Your task to perform on an android device: turn off javascript in the chrome app Image 0: 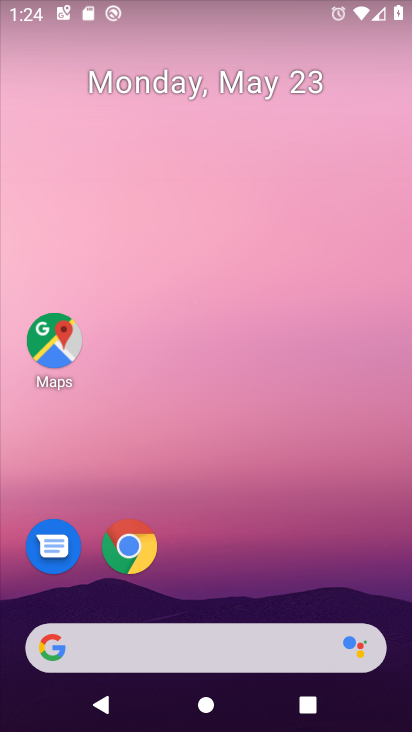
Step 0: click (131, 547)
Your task to perform on an android device: turn off javascript in the chrome app Image 1: 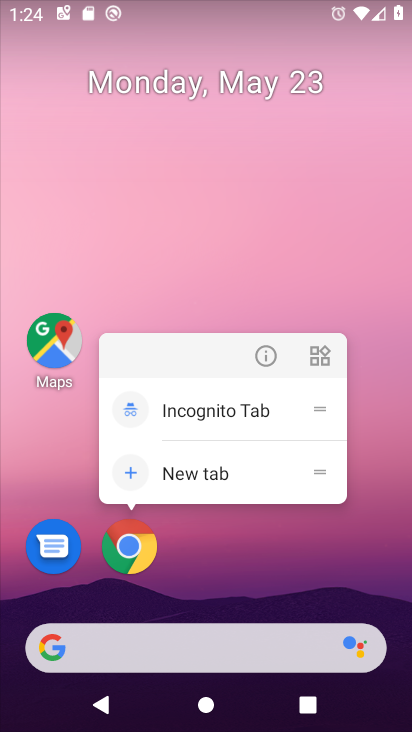
Step 1: click (287, 201)
Your task to perform on an android device: turn off javascript in the chrome app Image 2: 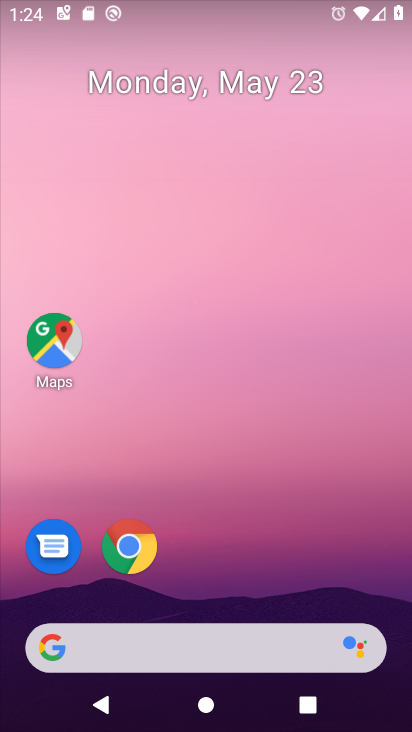
Step 2: click (131, 557)
Your task to perform on an android device: turn off javascript in the chrome app Image 3: 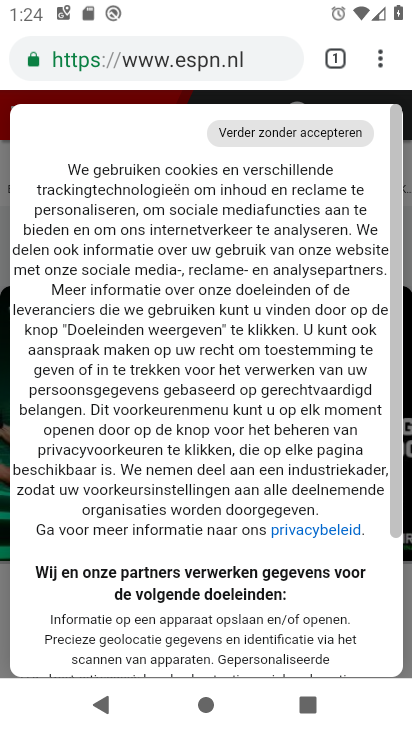
Step 3: click (381, 64)
Your task to perform on an android device: turn off javascript in the chrome app Image 4: 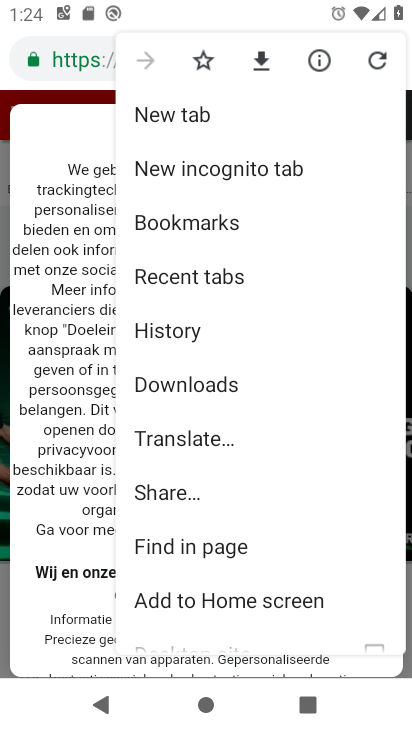
Step 4: drag from (223, 538) to (195, 168)
Your task to perform on an android device: turn off javascript in the chrome app Image 5: 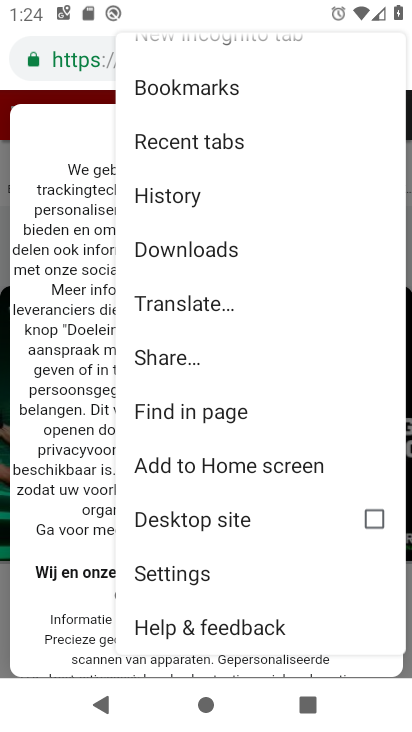
Step 5: click (201, 577)
Your task to perform on an android device: turn off javascript in the chrome app Image 6: 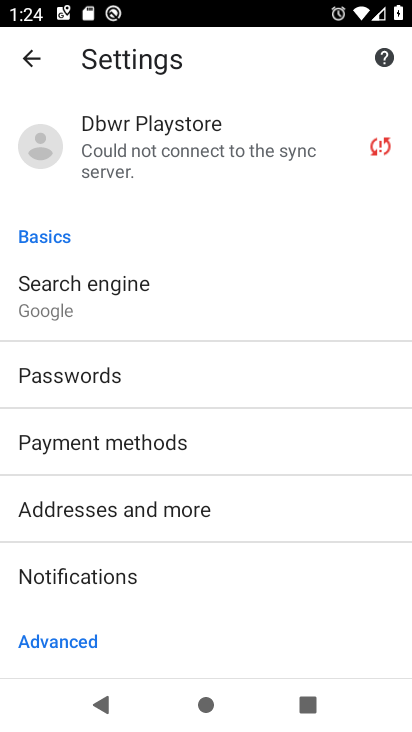
Step 6: drag from (202, 584) to (227, 378)
Your task to perform on an android device: turn off javascript in the chrome app Image 7: 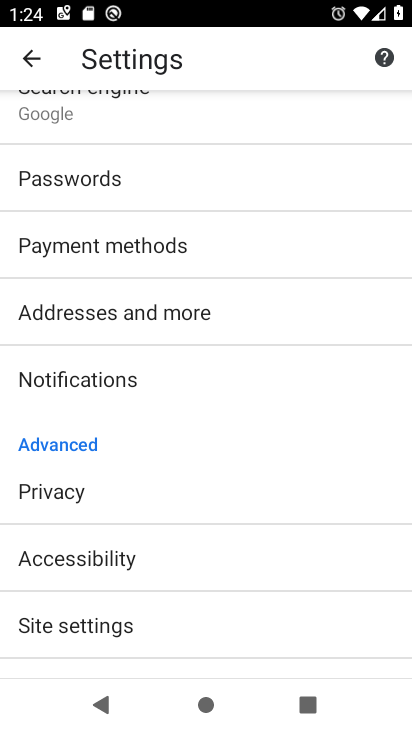
Step 7: click (140, 625)
Your task to perform on an android device: turn off javascript in the chrome app Image 8: 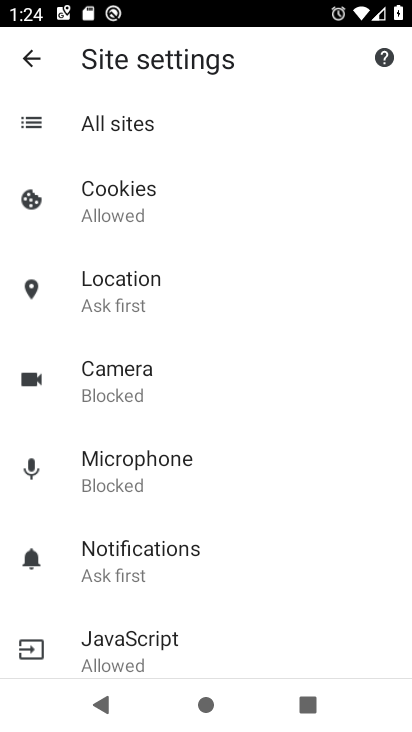
Step 8: click (157, 632)
Your task to perform on an android device: turn off javascript in the chrome app Image 9: 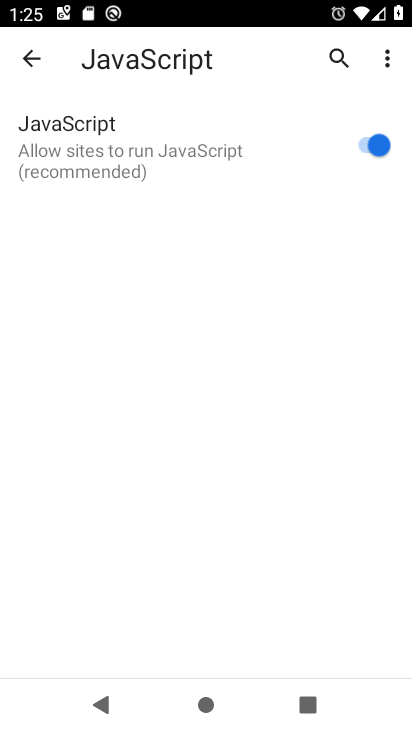
Step 9: click (363, 152)
Your task to perform on an android device: turn off javascript in the chrome app Image 10: 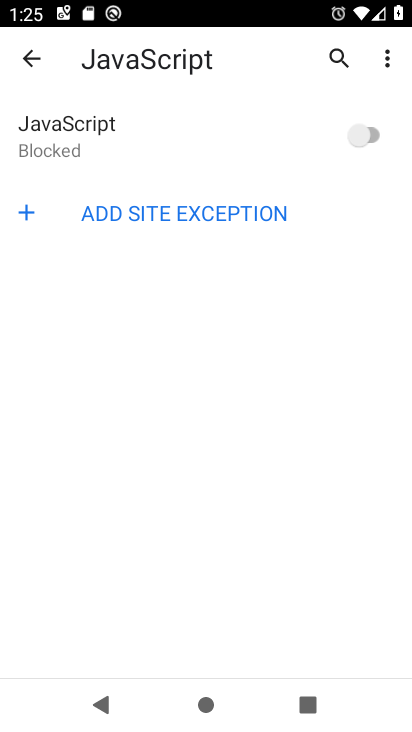
Step 10: task complete